Your task to perform on an android device: check google app version Image 0: 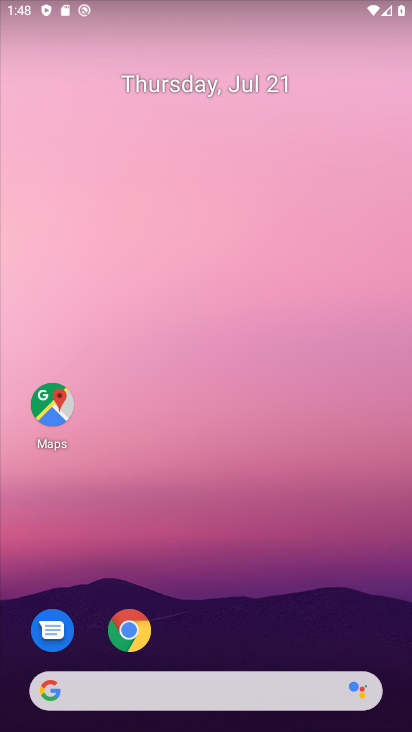
Step 0: click (179, 43)
Your task to perform on an android device: check google app version Image 1: 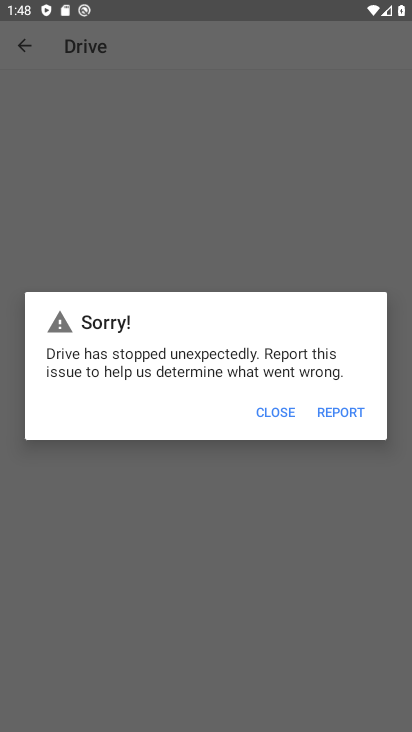
Step 1: press home button
Your task to perform on an android device: check google app version Image 2: 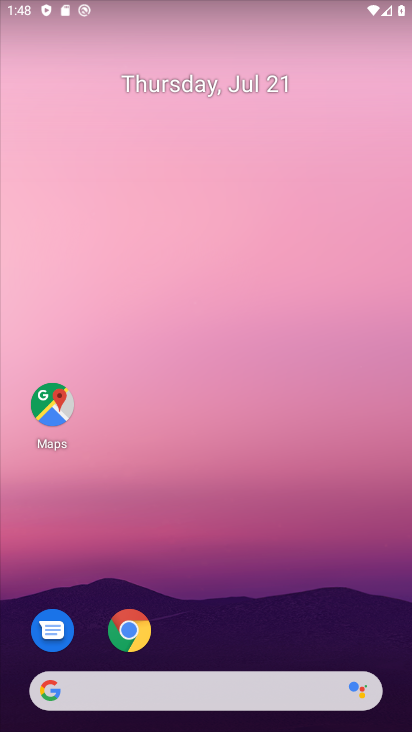
Step 2: click (174, 681)
Your task to perform on an android device: check google app version Image 3: 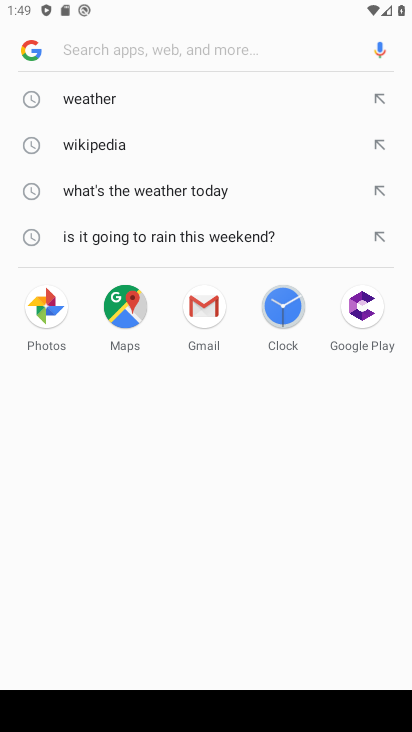
Step 3: click (29, 47)
Your task to perform on an android device: check google app version Image 4: 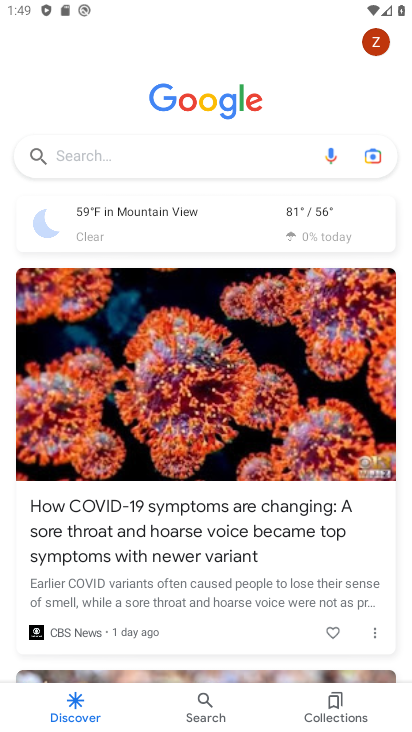
Step 4: click (375, 50)
Your task to perform on an android device: check google app version Image 5: 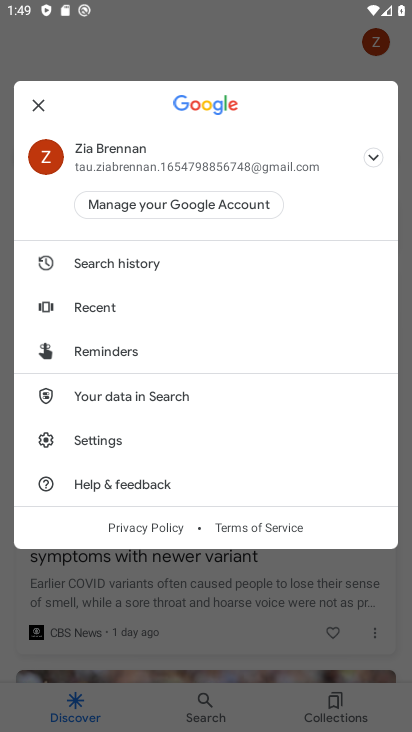
Step 5: click (83, 449)
Your task to perform on an android device: check google app version Image 6: 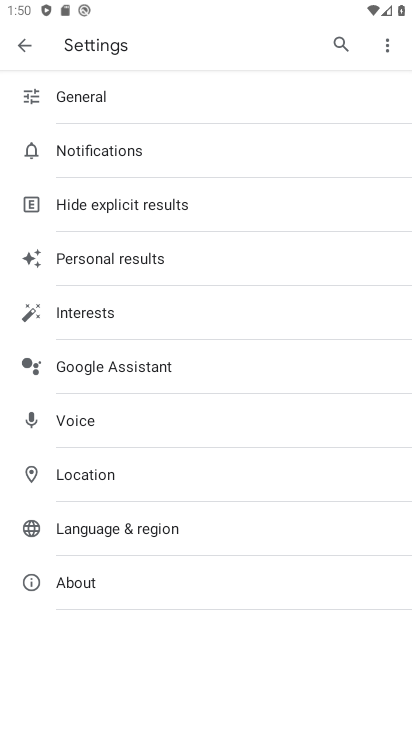
Step 6: click (91, 590)
Your task to perform on an android device: check google app version Image 7: 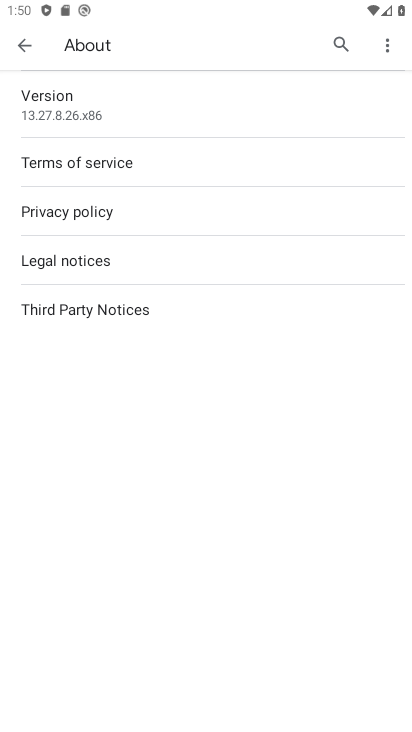
Step 7: task complete